Your task to perform on an android device: Is it going to rain today? Image 0: 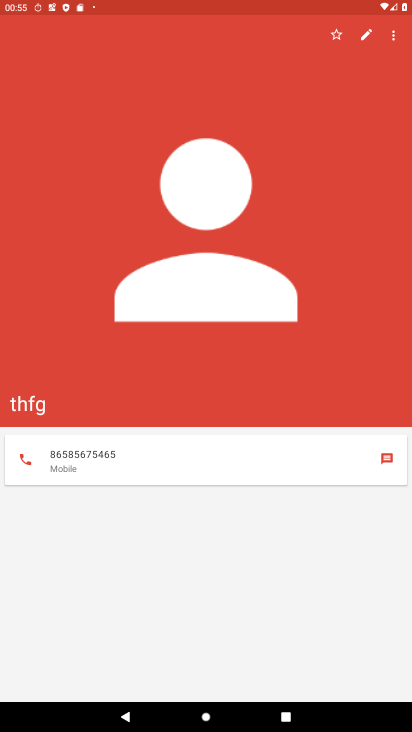
Step 0: press home button
Your task to perform on an android device: Is it going to rain today? Image 1: 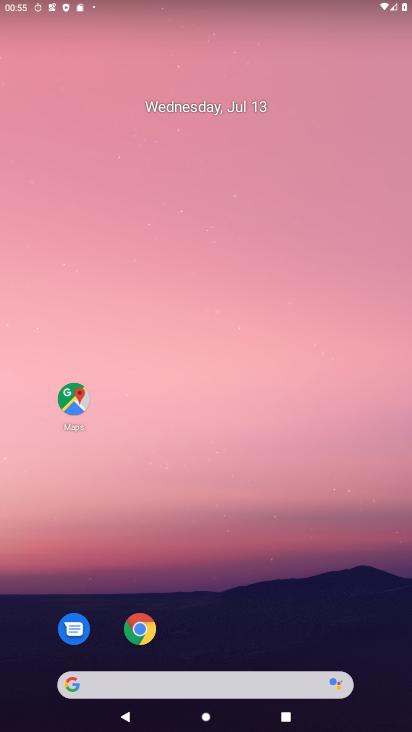
Step 1: drag from (217, 620) to (211, 187)
Your task to perform on an android device: Is it going to rain today? Image 2: 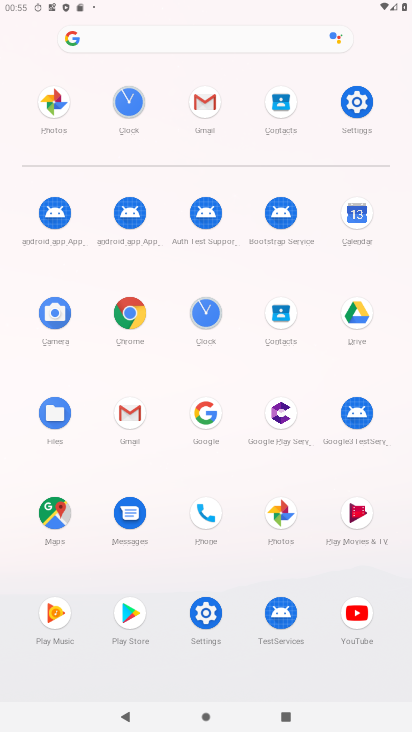
Step 2: click (193, 407)
Your task to perform on an android device: Is it going to rain today? Image 3: 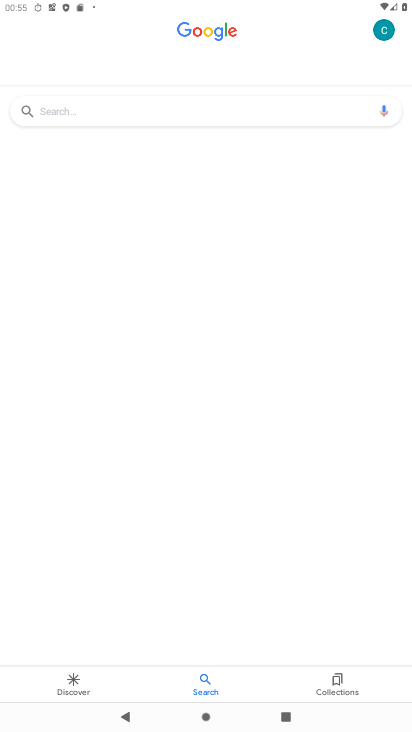
Step 3: click (172, 112)
Your task to perform on an android device: Is it going to rain today? Image 4: 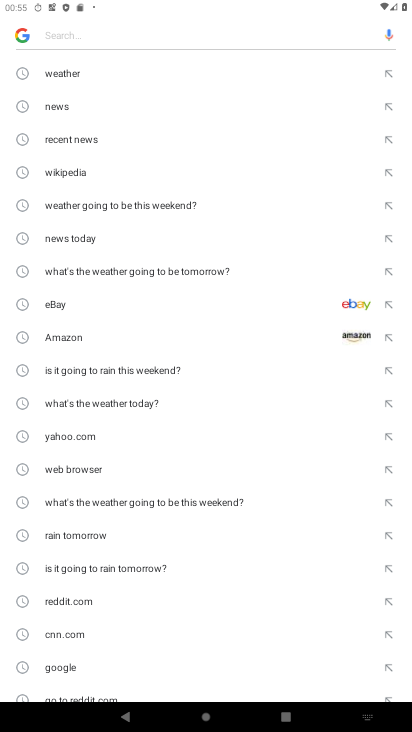
Step 4: click (92, 77)
Your task to perform on an android device: Is it going to rain today? Image 5: 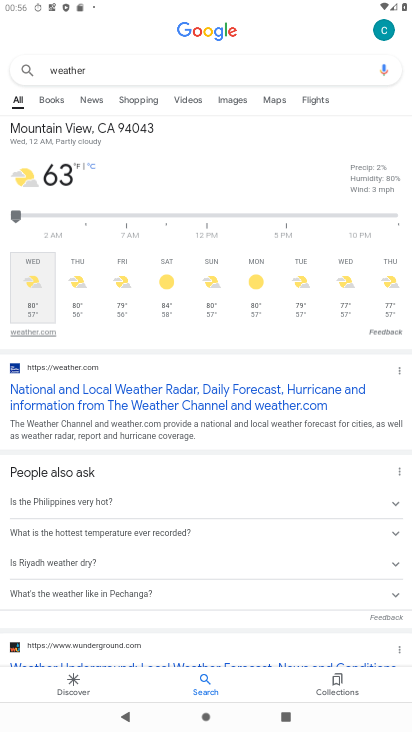
Step 5: task complete